Your task to perform on an android device: set the timer Image 0: 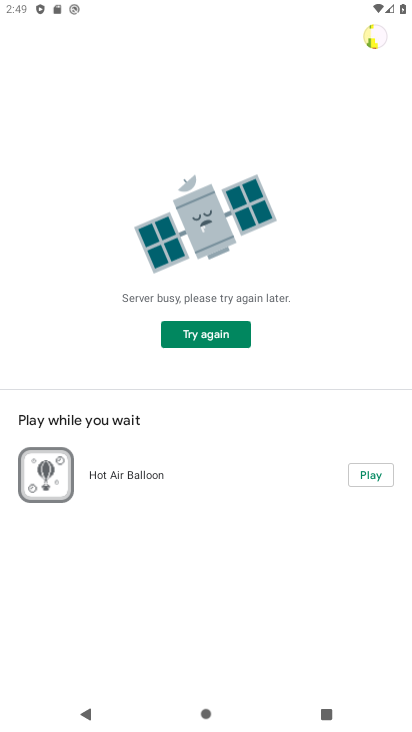
Step 0: press home button
Your task to perform on an android device: set the timer Image 1: 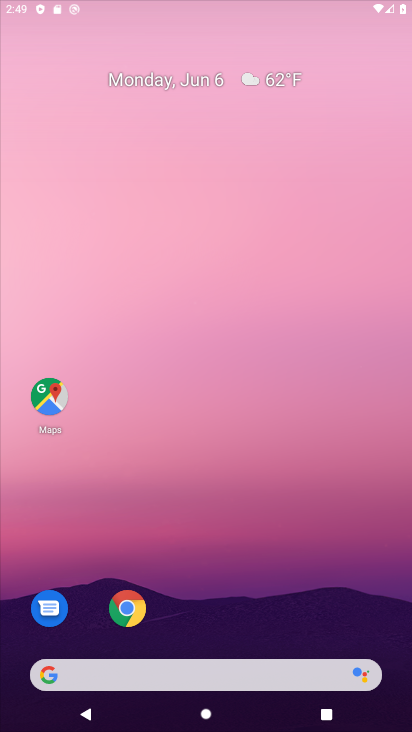
Step 1: drag from (272, 583) to (328, 7)
Your task to perform on an android device: set the timer Image 2: 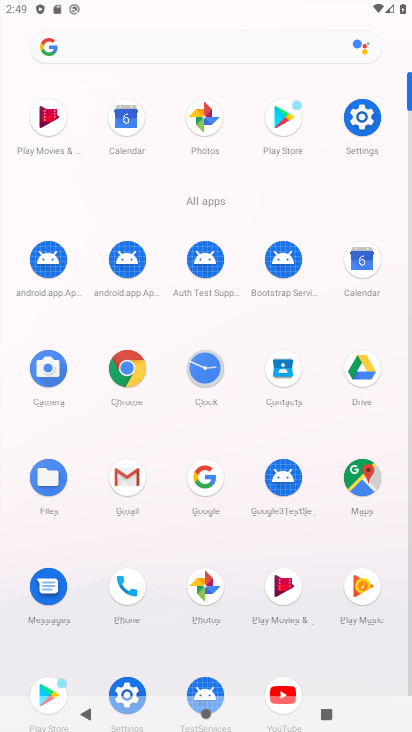
Step 2: click (210, 371)
Your task to perform on an android device: set the timer Image 3: 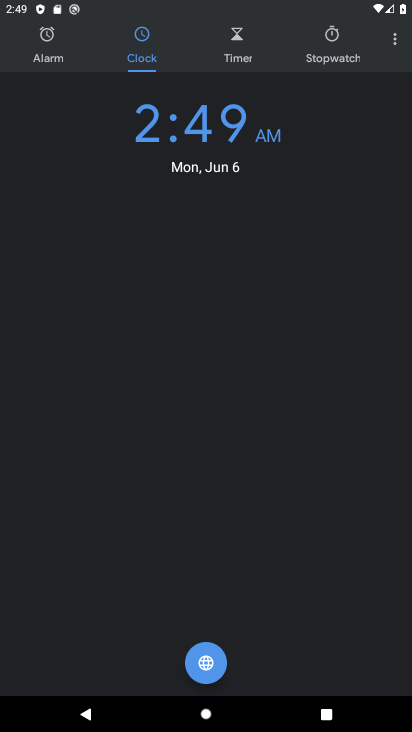
Step 3: click (251, 54)
Your task to perform on an android device: set the timer Image 4: 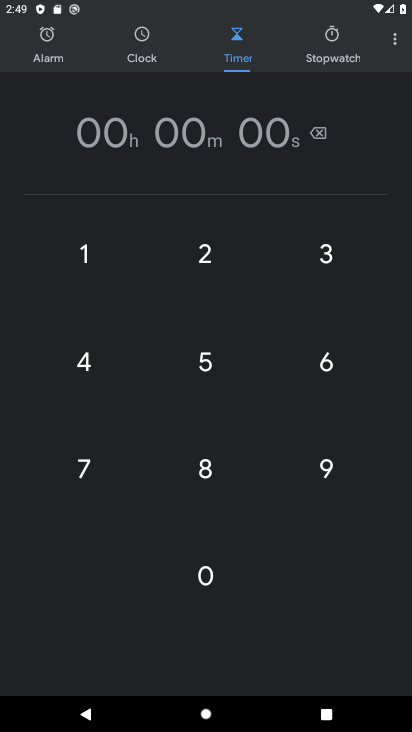
Step 4: click (194, 459)
Your task to perform on an android device: set the timer Image 5: 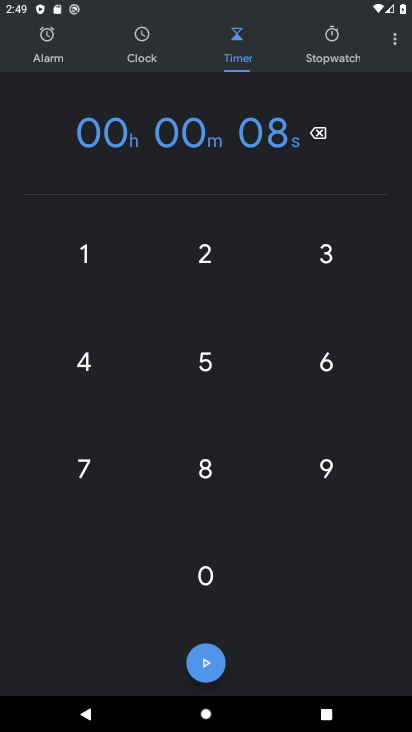
Step 5: click (85, 398)
Your task to perform on an android device: set the timer Image 6: 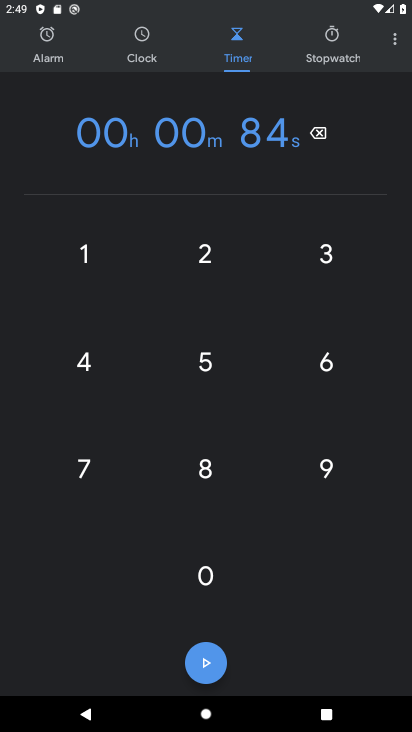
Step 6: click (235, 270)
Your task to perform on an android device: set the timer Image 7: 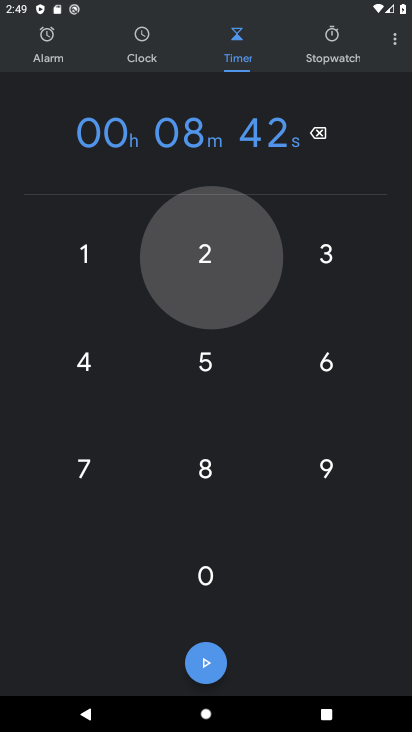
Step 7: click (244, 366)
Your task to perform on an android device: set the timer Image 8: 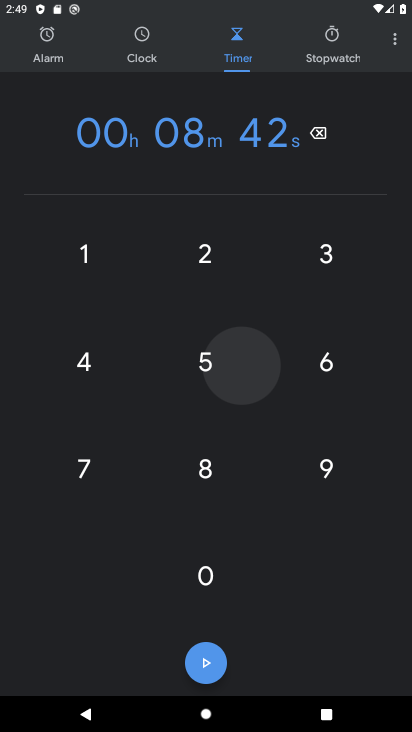
Step 8: click (355, 284)
Your task to perform on an android device: set the timer Image 9: 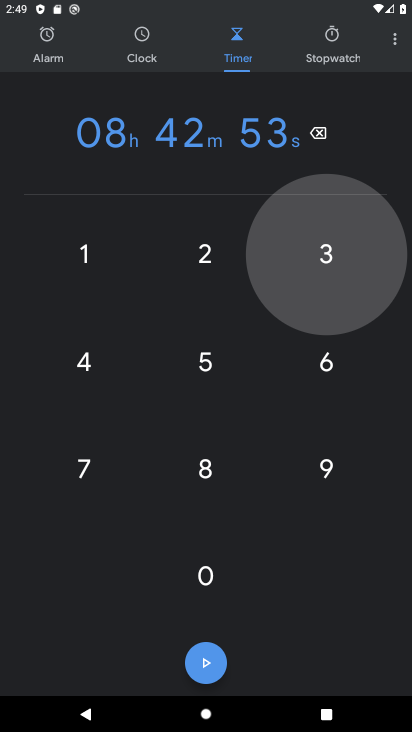
Step 9: click (347, 351)
Your task to perform on an android device: set the timer Image 10: 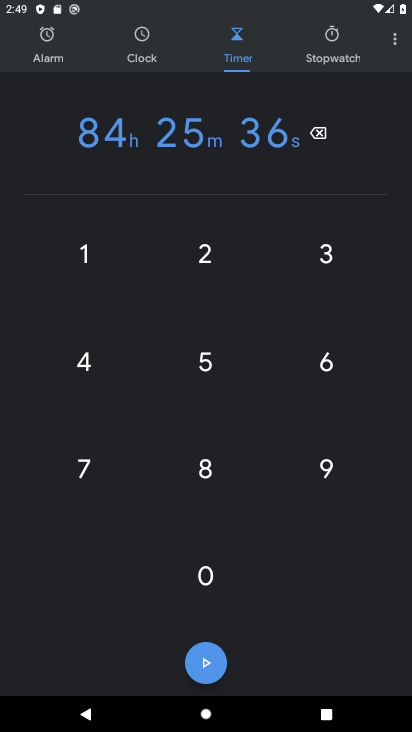
Step 10: click (205, 647)
Your task to perform on an android device: set the timer Image 11: 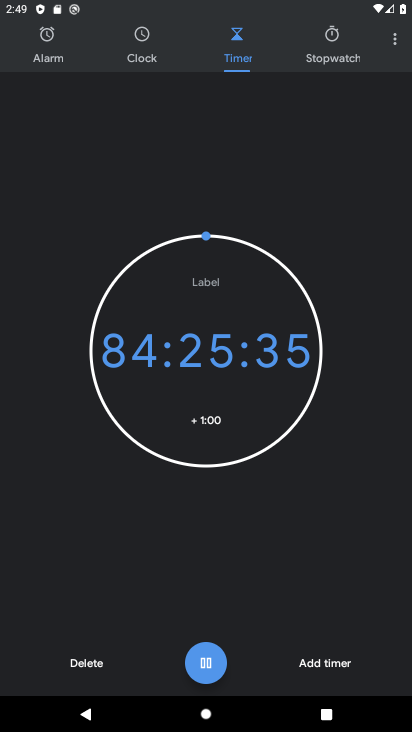
Step 11: task complete